Your task to perform on an android device: What's the news this week? Image 0: 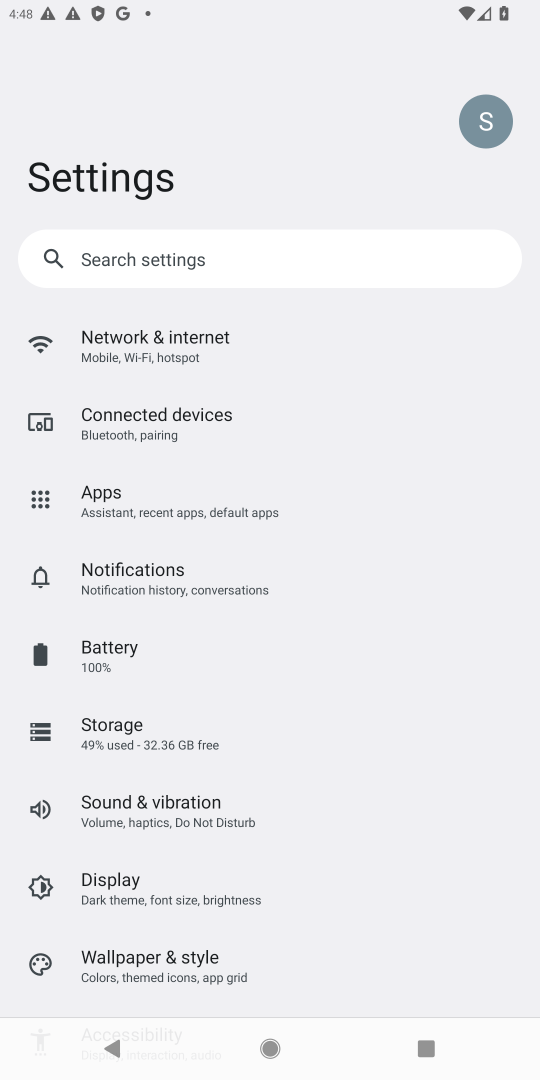
Step 0: press home button
Your task to perform on an android device: What's the news this week? Image 1: 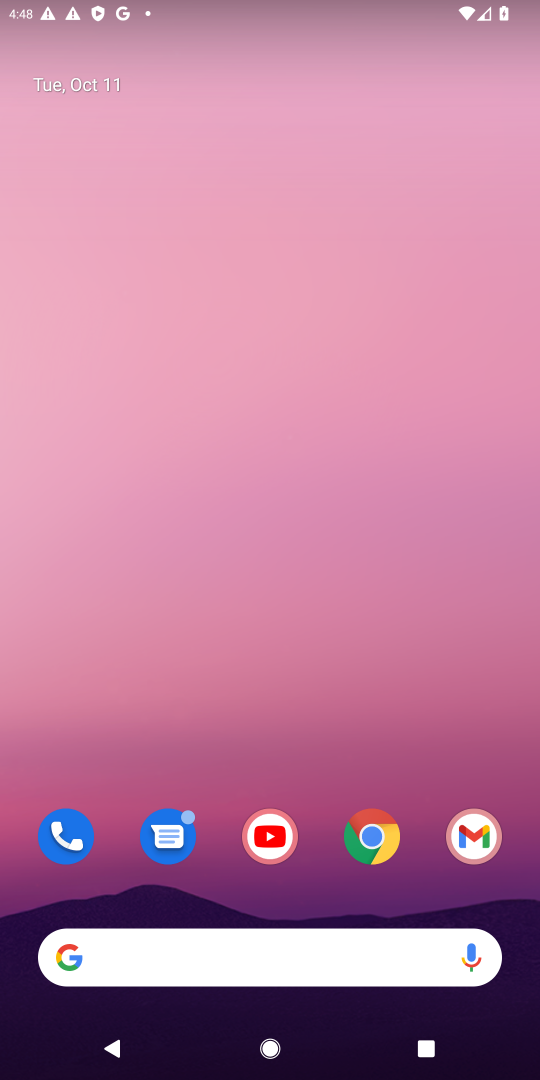
Step 1: click (379, 826)
Your task to perform on an android device: What's the news this week? Image 2: 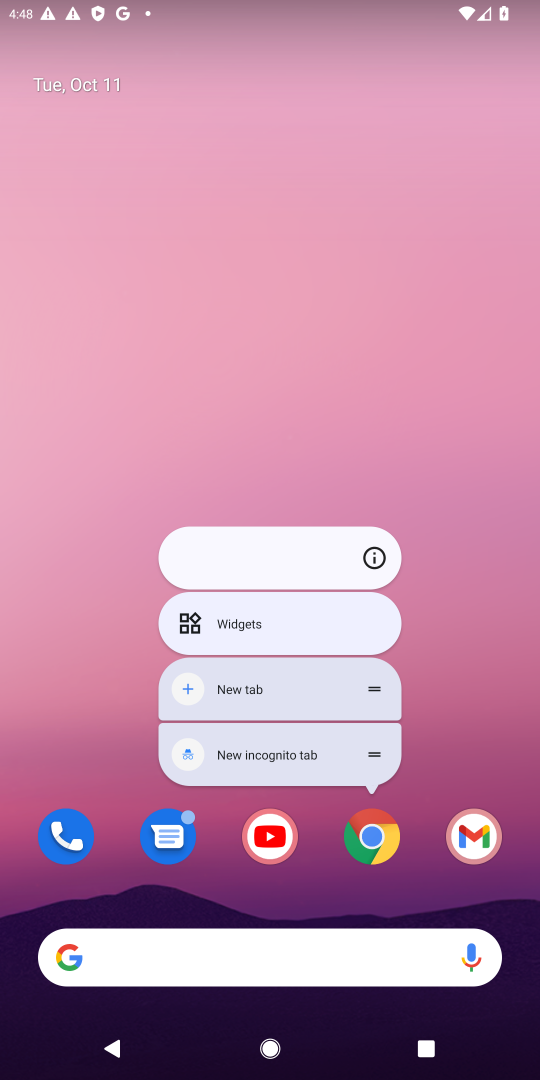
Step 2: click (373, 834)
Your task to perform on an android device: What's the news this week? Image 3: 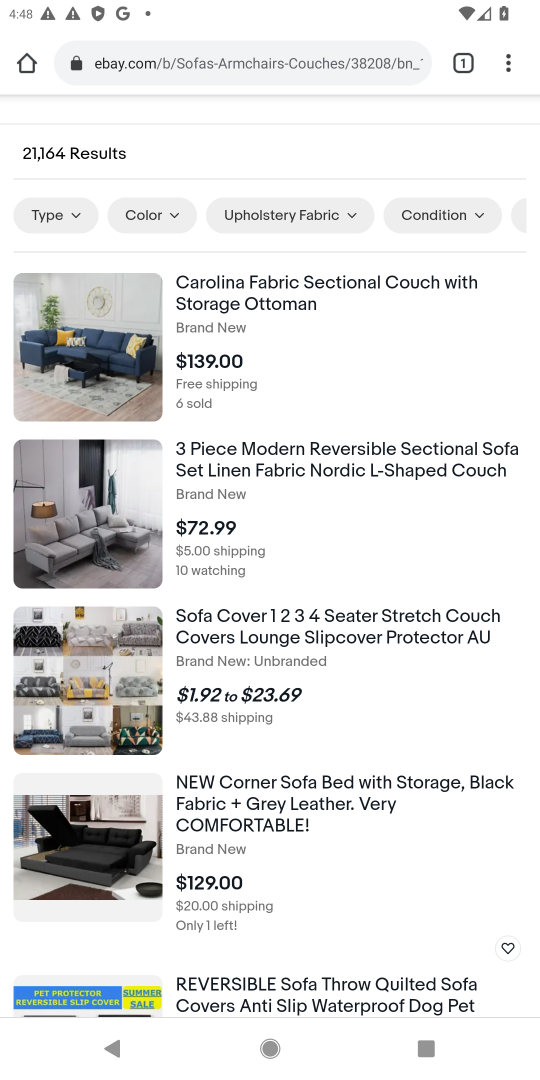
Step 3: click (269, 66)
Your task to perform on an android device: What's the news this week? Image 4: 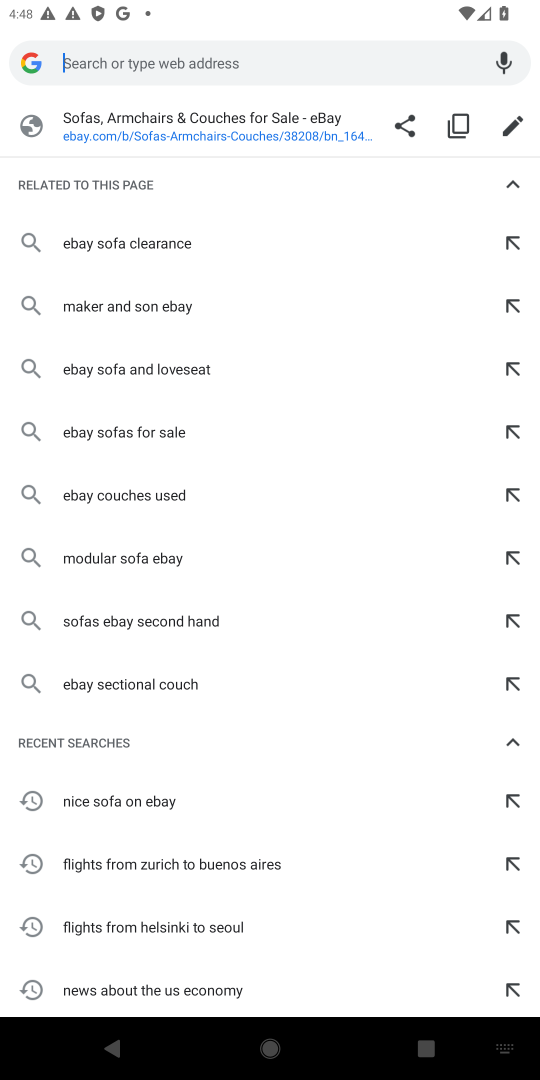
Step 4: type " news this week"
Your task to perform on an android device: What's the news this week? Image 5: 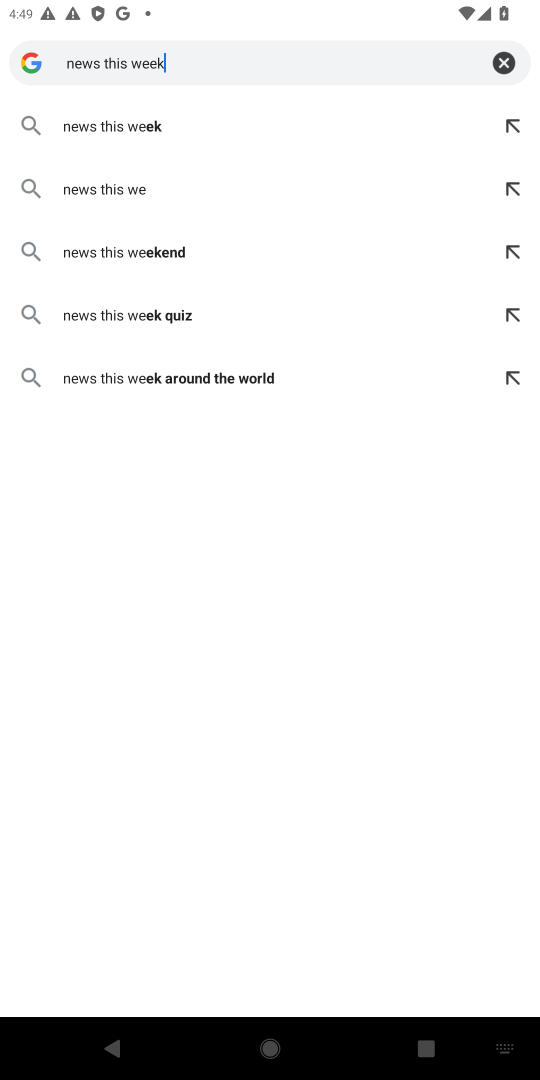
Step 5: press enter
Your task to perform on an android device: What's the news this week? Image 6: 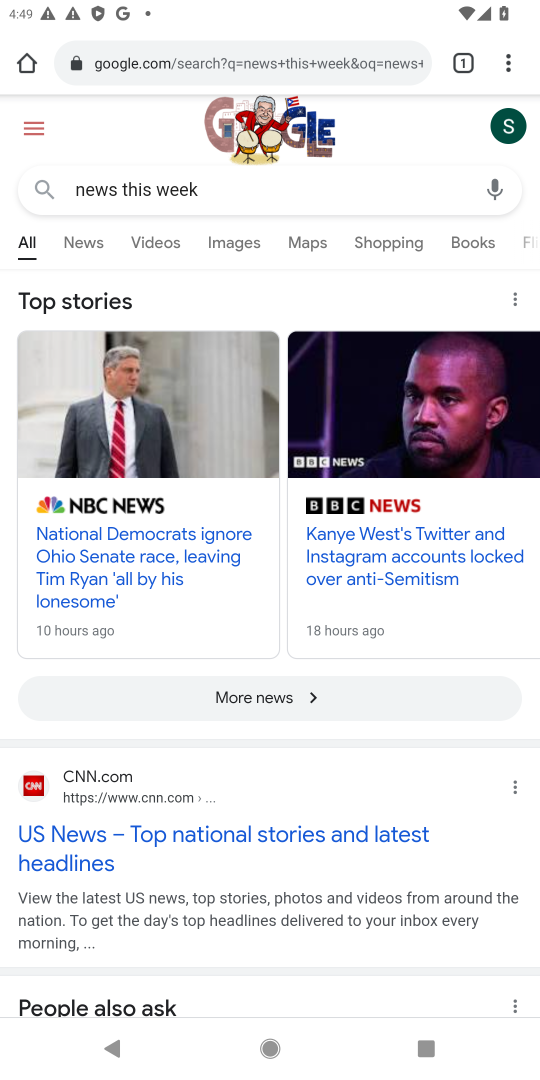
Step 6: click (85, 251)
Your task to perform on an android device: What's the news this week? Image 7: 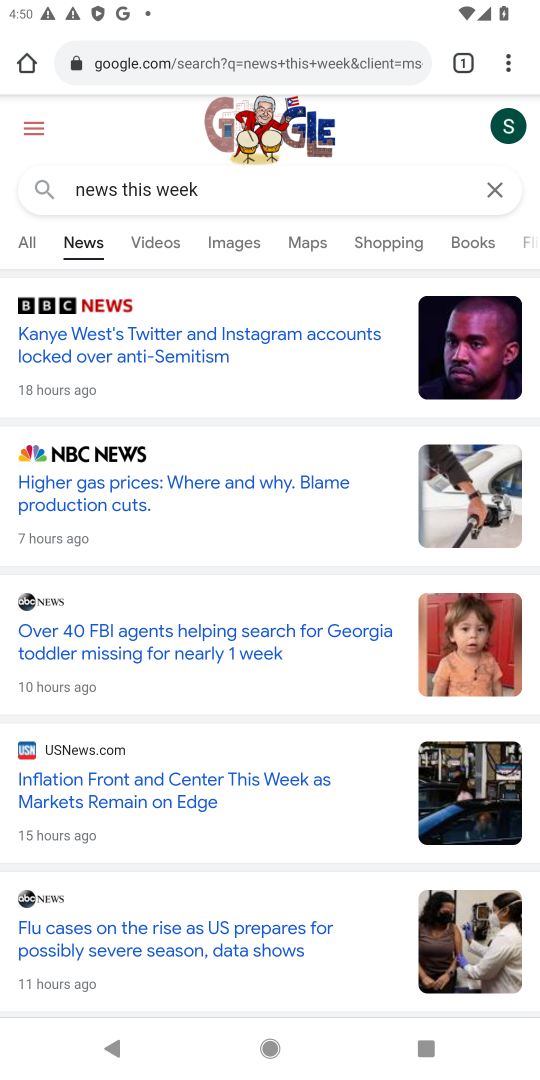
Step 7: task complete